Your task to perform on an android device: turn on airplane mode Image 0: 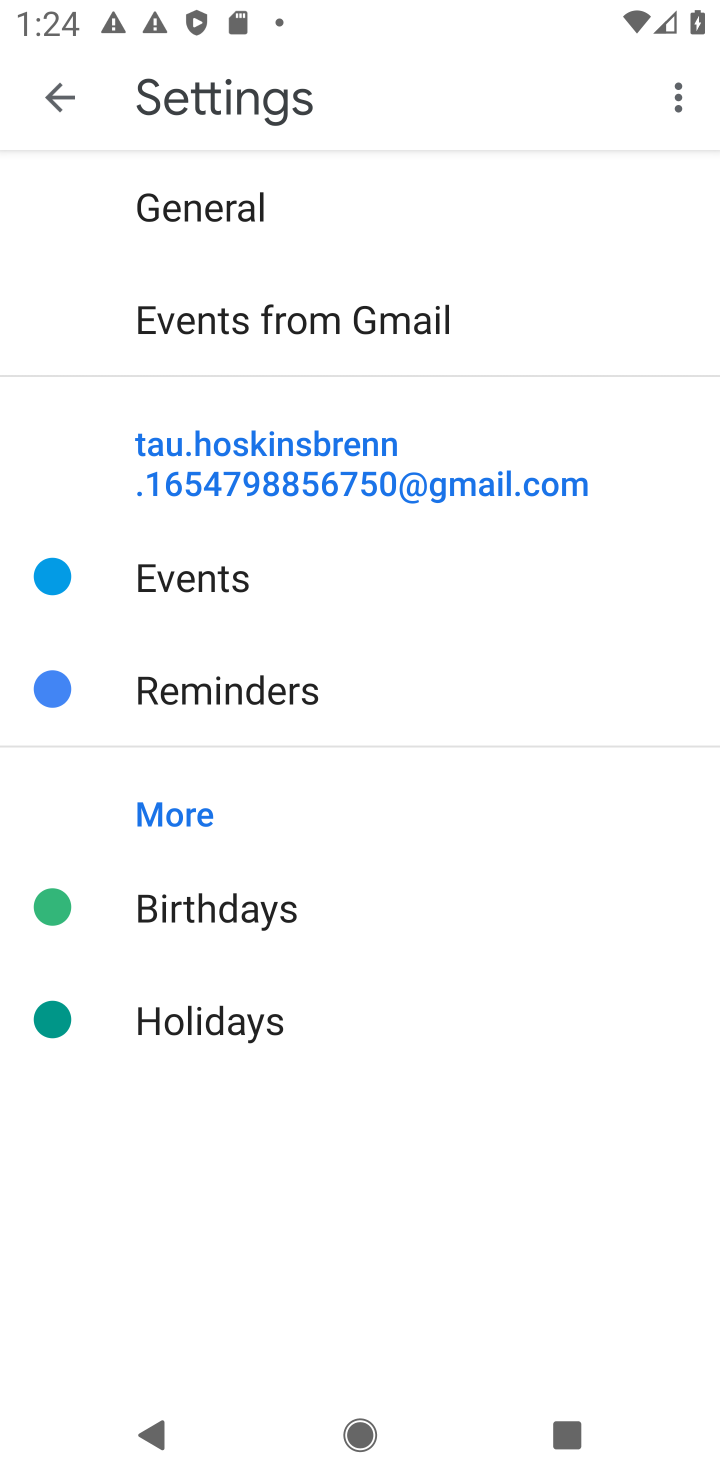
Step 0: press home button
Your task to perform on an android device: turn on airplane mode Image 1: 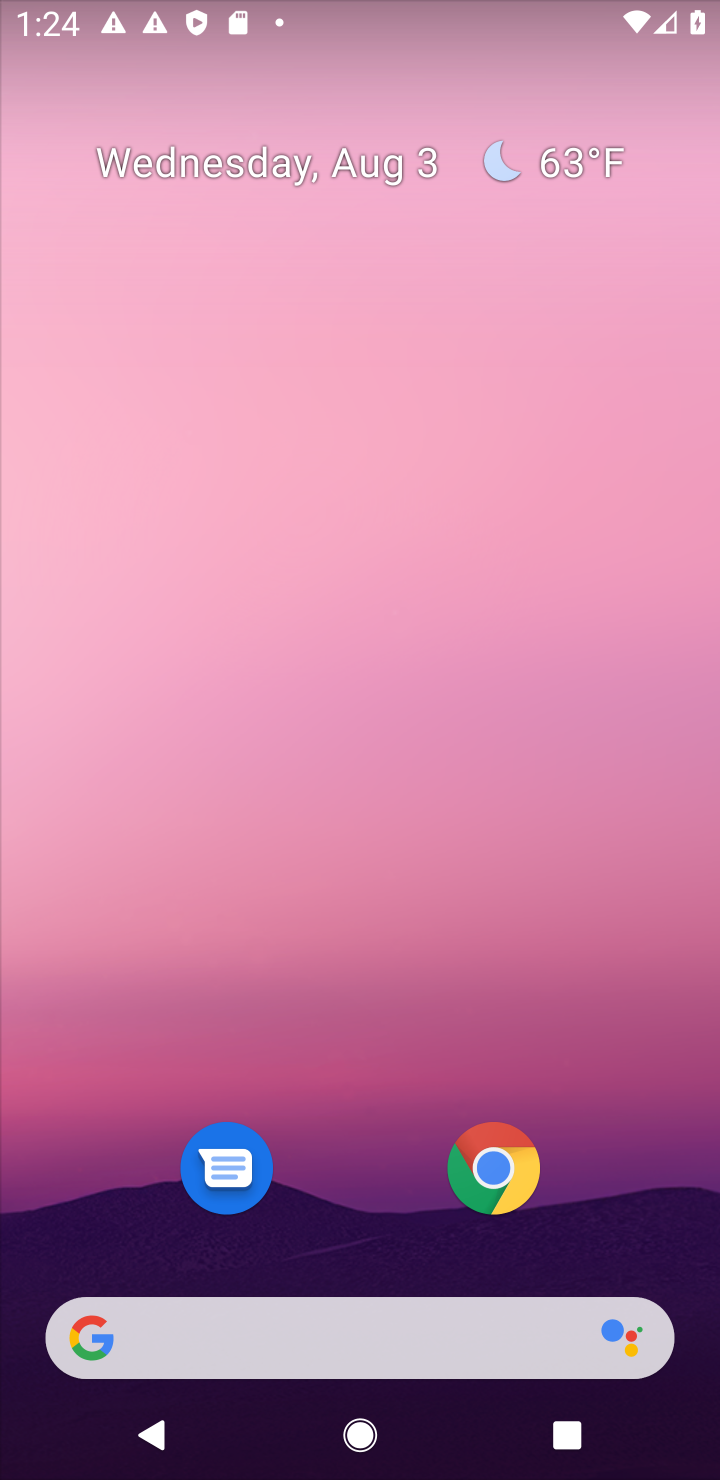
Step 1: drag from (637, 1119) to (591, 286)
Your task to perform on an android device: turn on airplane mode Image 2: 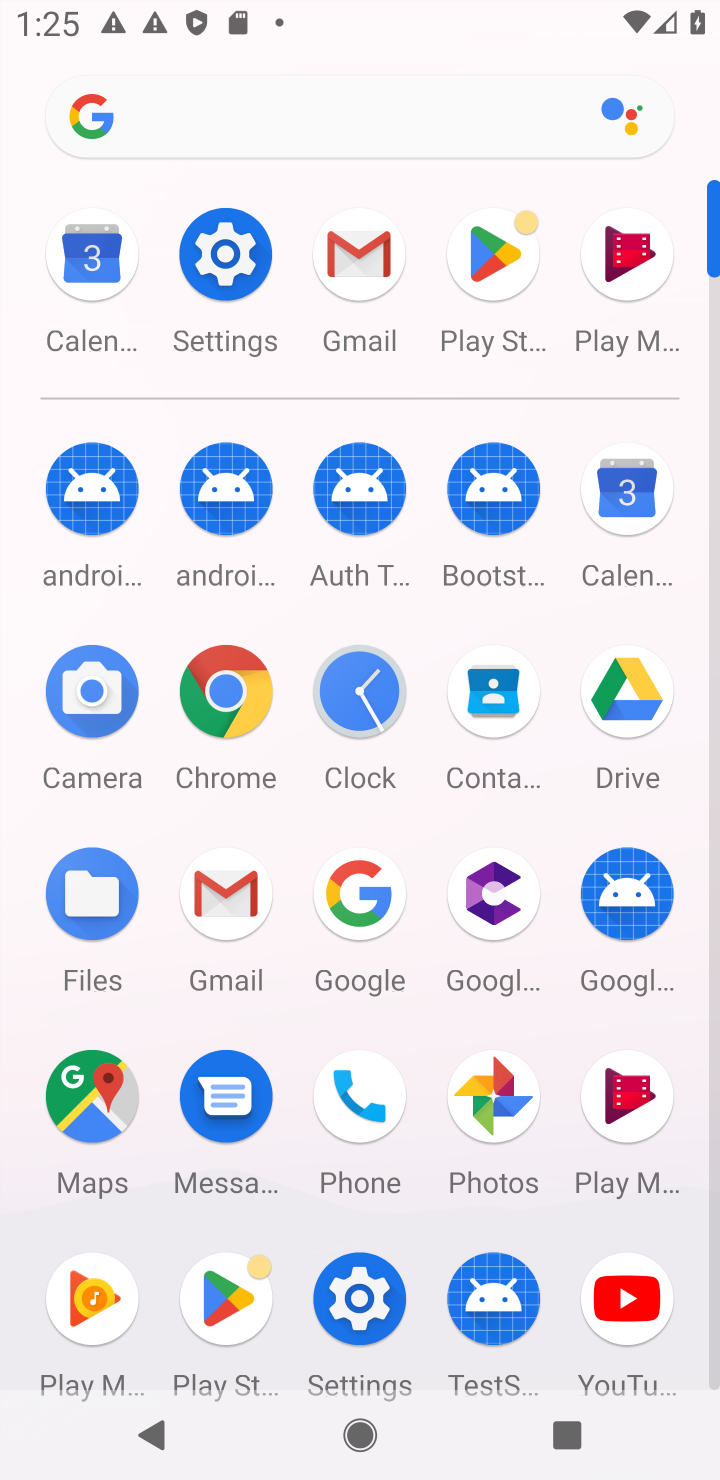
Step 2: click (361, 1295)
Your task to perform on an android device: turn on airplane mode Image 3: 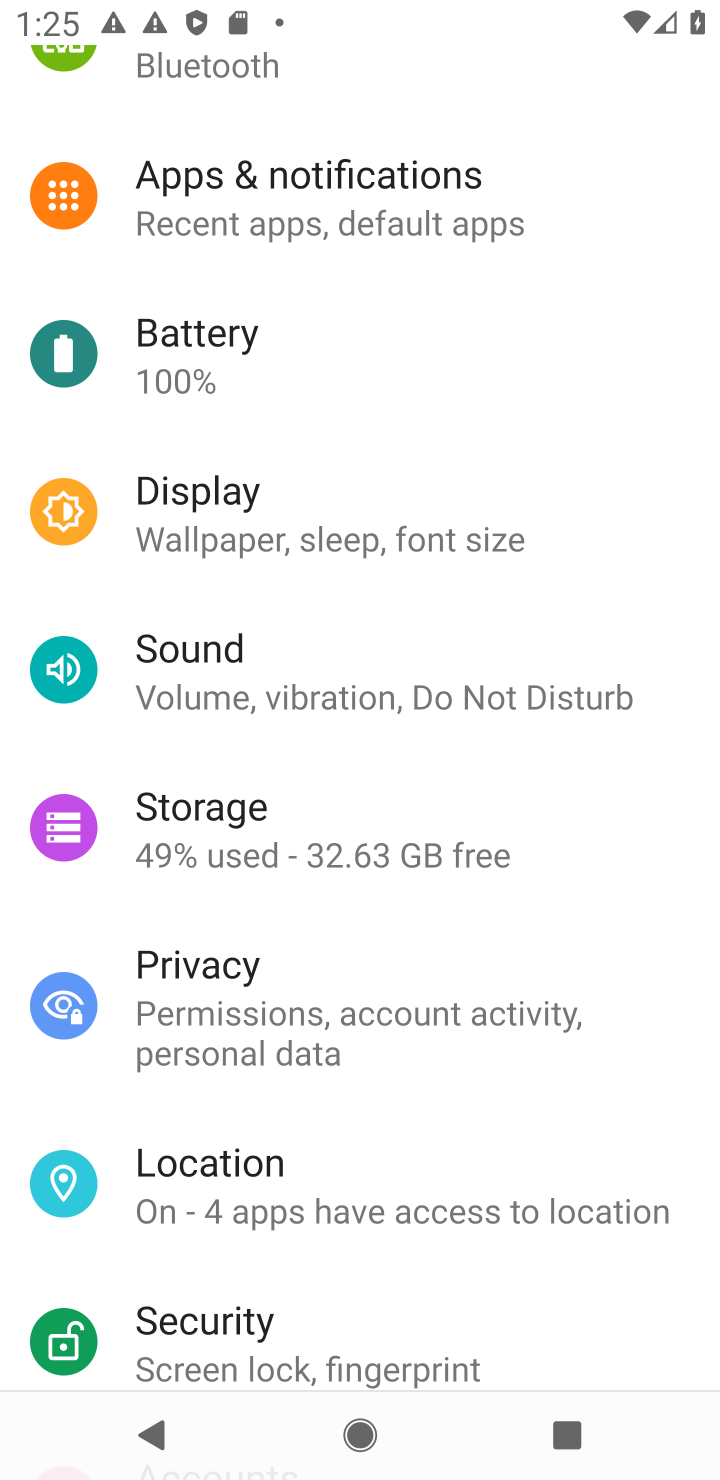
Step 3: drag from (583, 327) to (564, 910)
Your task to perform on an android device: turn on airplane mode Image 4: 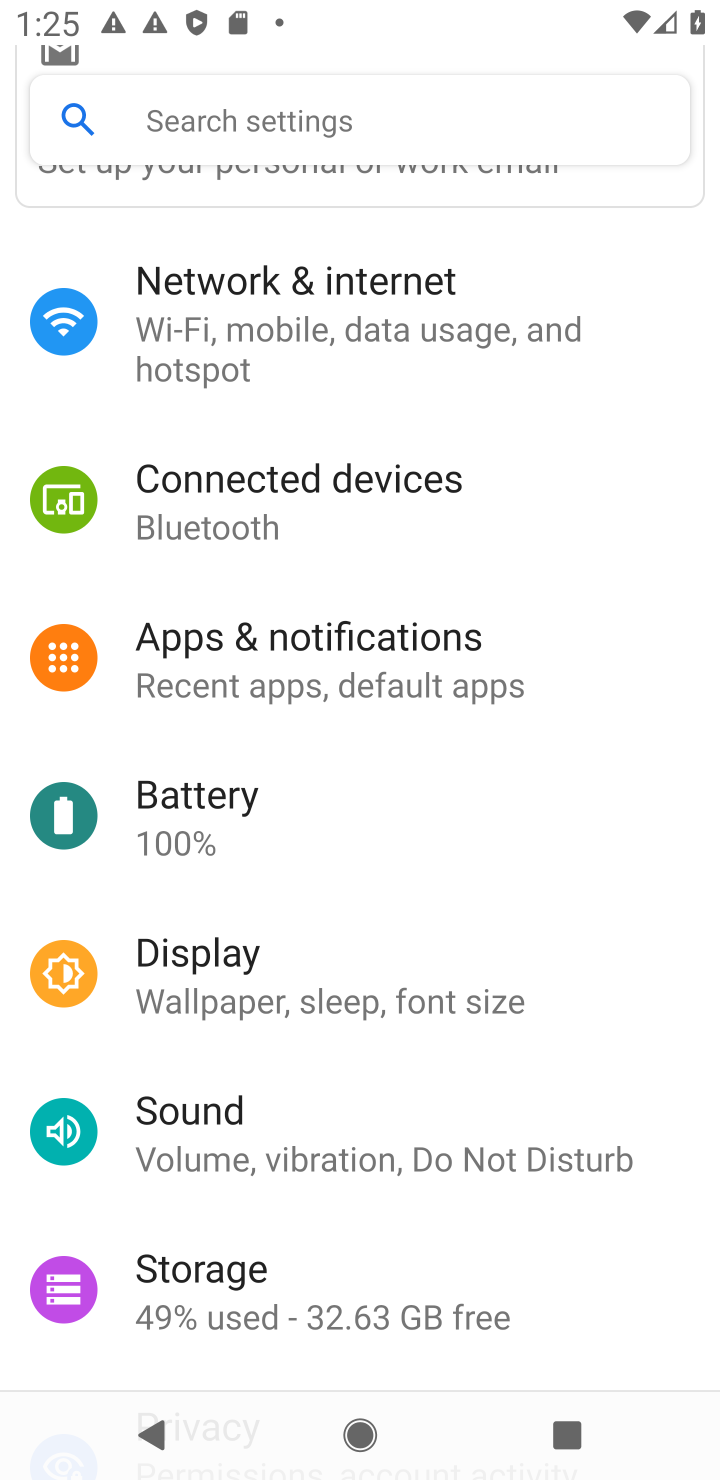
Step 4: click (279, 340)
Your task to perform on an android device: turn on airplane mode Image 5: 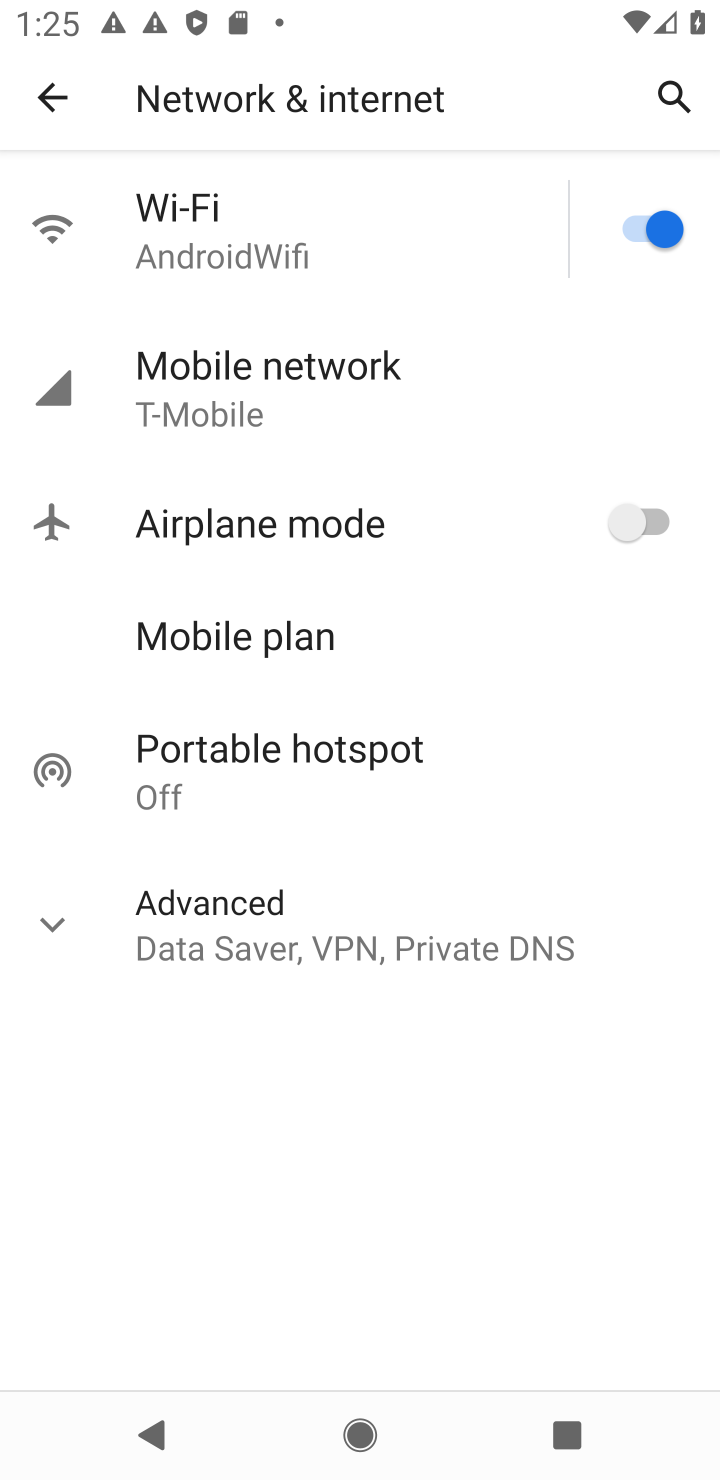
Step 5: click (653, 516)
Your task to perform on an android device: turn on airplane mode Image 6: 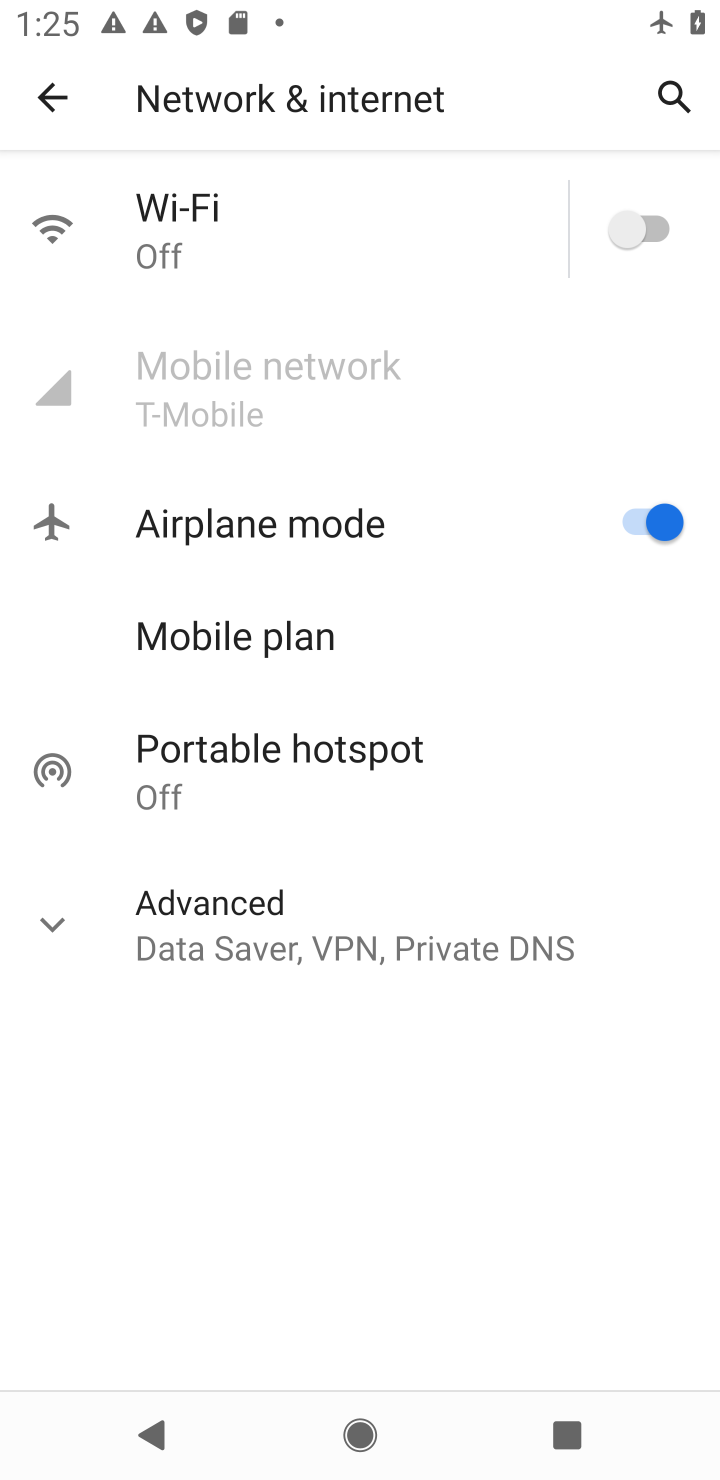
Step 6: task complete